Your task to perform on an android device: check out phone information Image 0: 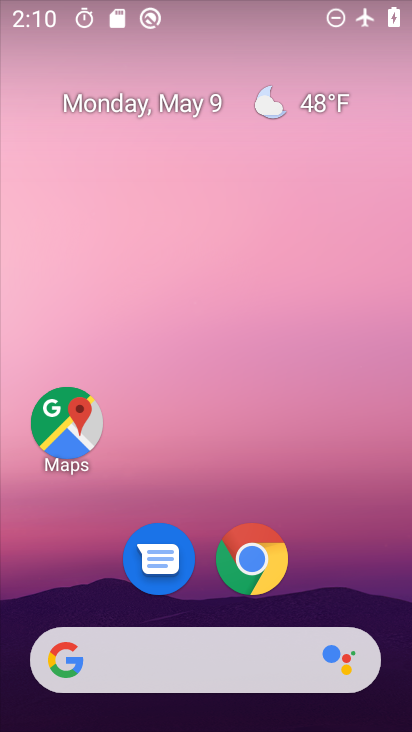
Step 0: drag from (212, 564) to (247, 325)
Your task to perform on an android device: check out phone information Image 1: 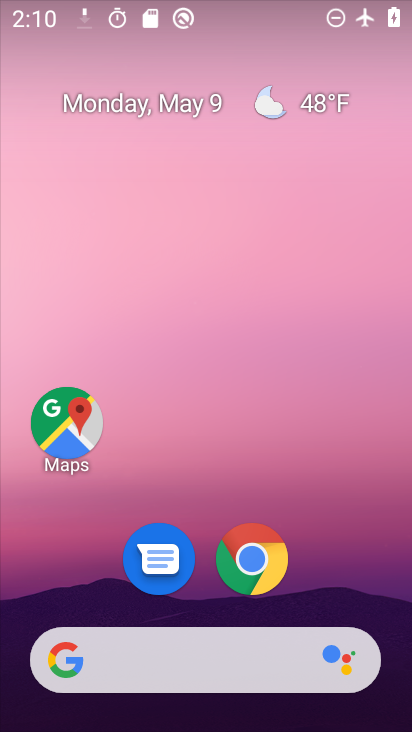
Step 1: drag from (209, 601) to (228, 267)
Your task to perform on an android device: check out phone information Image 2: 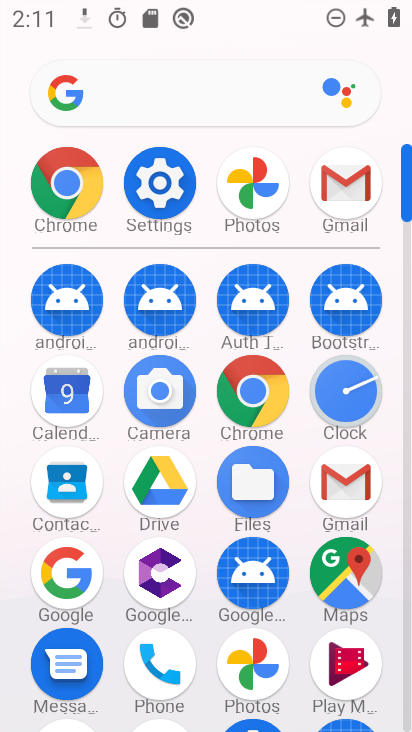
Step 2: drag from (206, 649) to (191, 216)
Your task to perform on an android device: check out phone information Image 3: 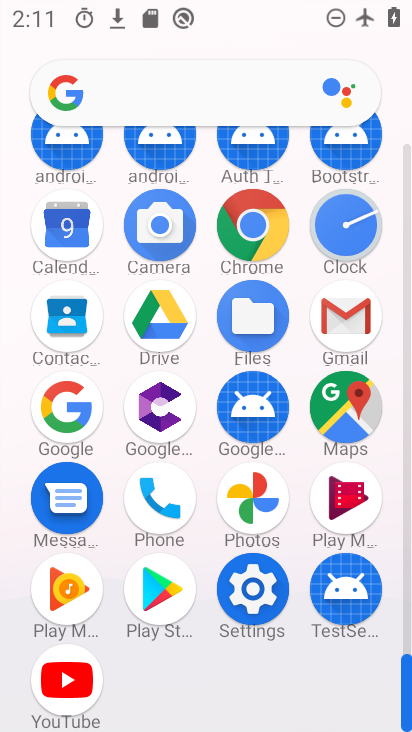
Step 3: click (241, 585)
Your task to perform on an android device: check out phone information Image 4: 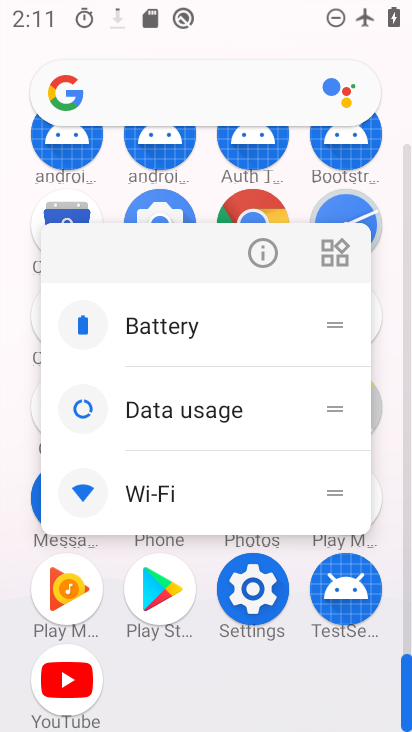
Step 4: click (258, 253)
Your task to perform on an android device: check out phone information Image 5: 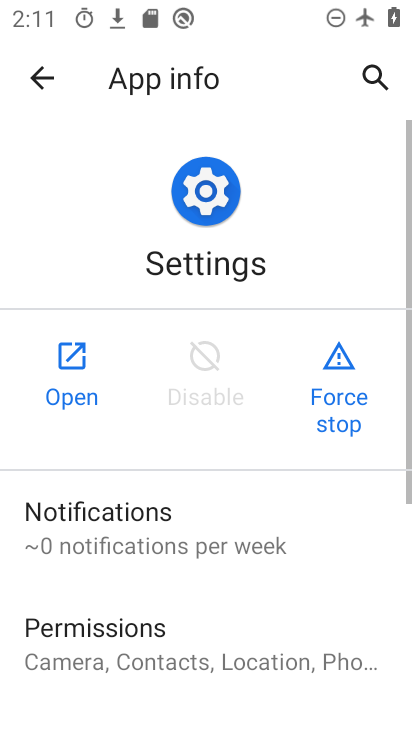
Step 5: drag from (209, 587) to (226, 337)
Your task to perform on an android device: check out phone information Image 6: 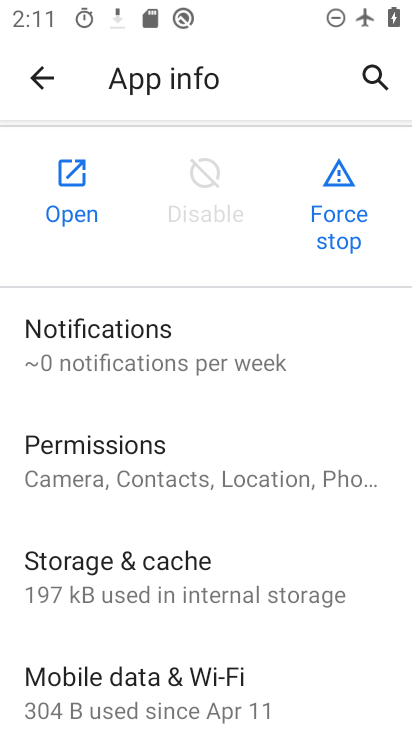
Step 6: click (64, 201)
Your task to perform on an android device: check out phone information Image 7: 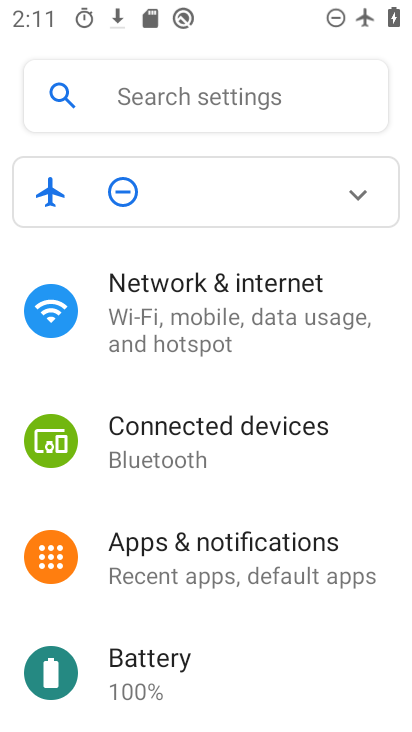
Step 7: drag from (248, 656) to (307, 105)
Your task to perform on an android device: check out phone information Image 8: 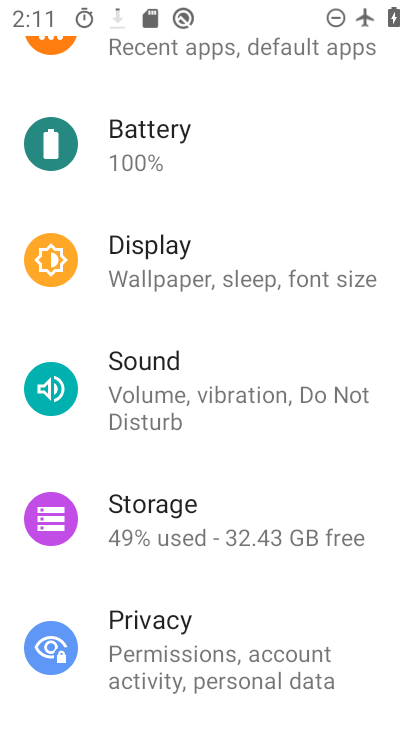
Step 8: drag from (250, 532) to (253, 219)
Your task to perform on an android device: check out phone information Image 9: 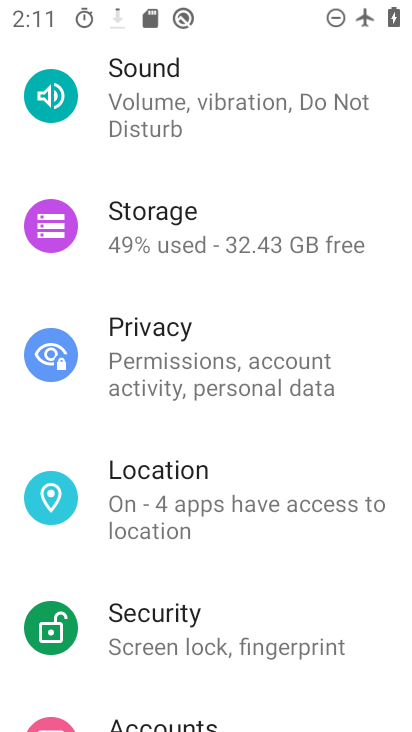
Step 9: drag from (204, 660) to (297, 256)
Your task to perform on an android device: check out phone information Image 10: 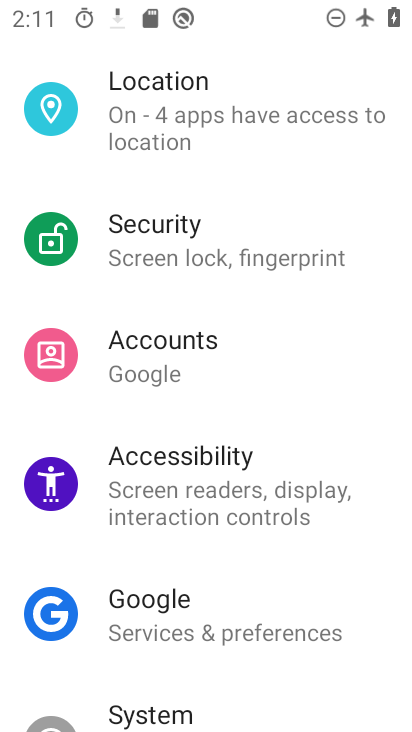
Step 10: drag from (191, 634) to (236, 57)
Your task to perform on an android device: check out phone information Image 11: 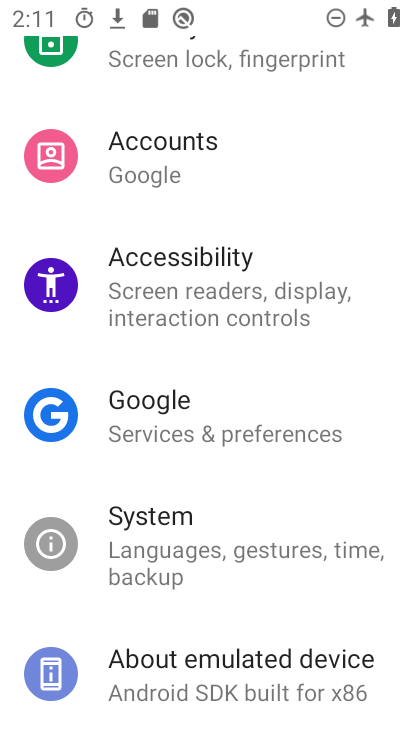
Step 11: drag from (201, 614) to (262, 183)
Your task to perform on an android device: check out phone information Image 12: 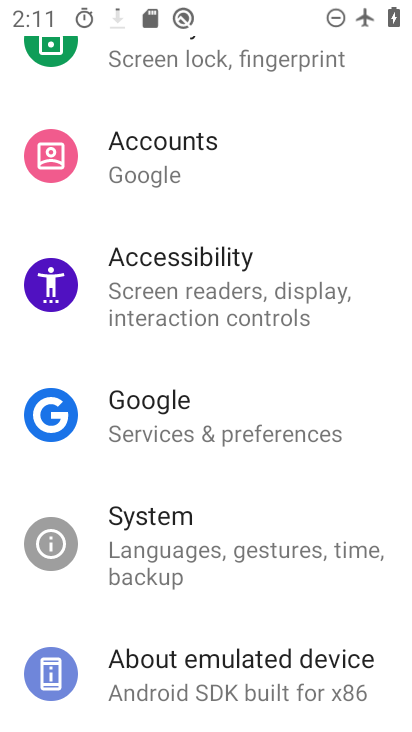
Step 12: click (232, 687)
Your task to perform on an android device: check out phone information Image 13: 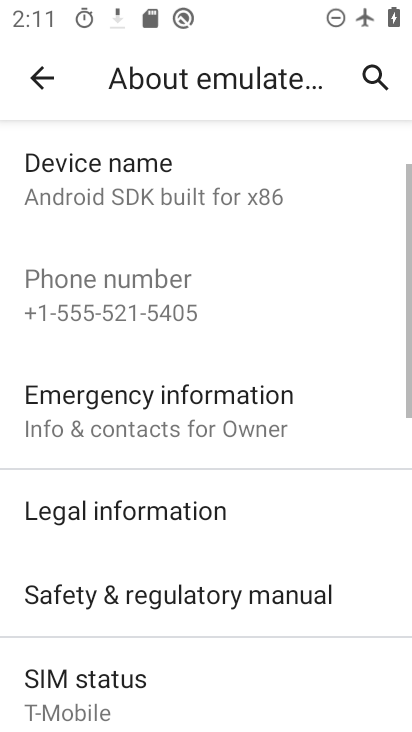
Step 13: task complete